Your task to perform on an android device: check out phone information Image 0: 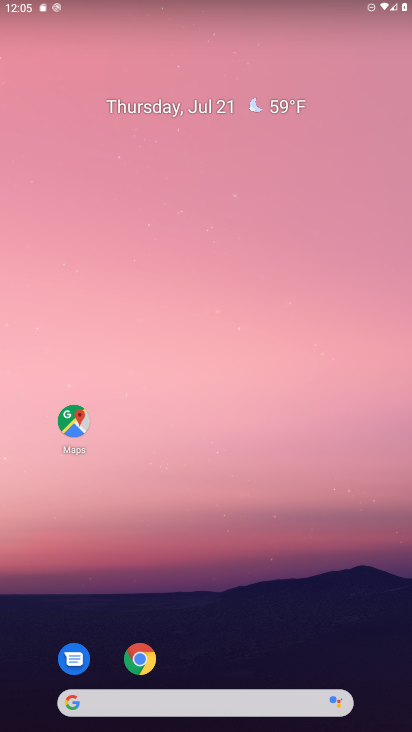
Step 0: press home button
Your task to perform on an android device: check out phone information Image 1: 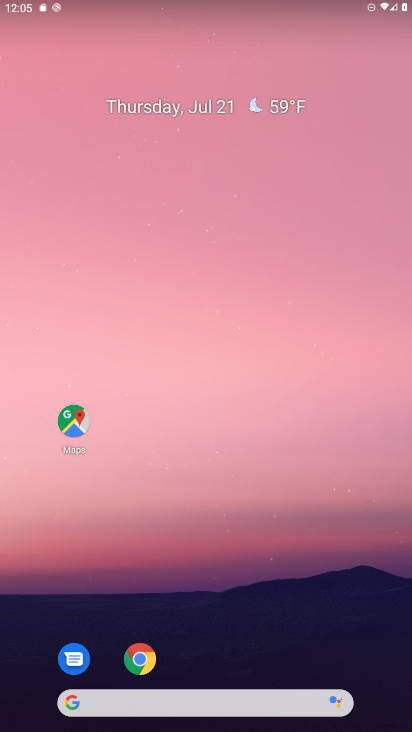
Step 1: drag from (47, 550) to (243, 111)
Your task to perform on an android device: check out phone information Image 2: 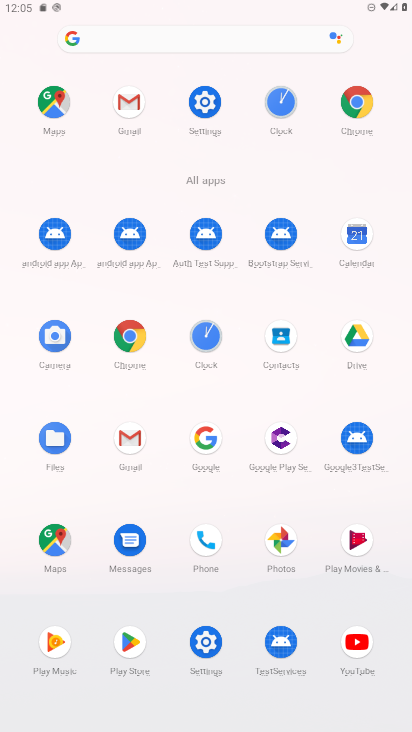
Step 2: click (177, 545)
Your task to perform on an android device: check out phone information Image 3: 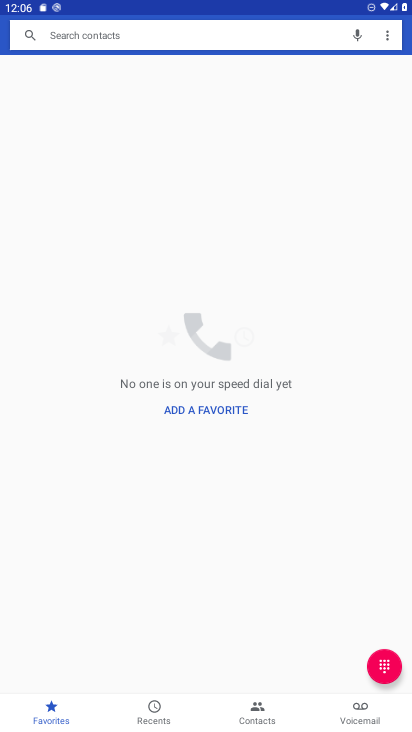
Step 3: task complete